Your task to perform on an android device: delete browsing data in the chrome app Image 0: 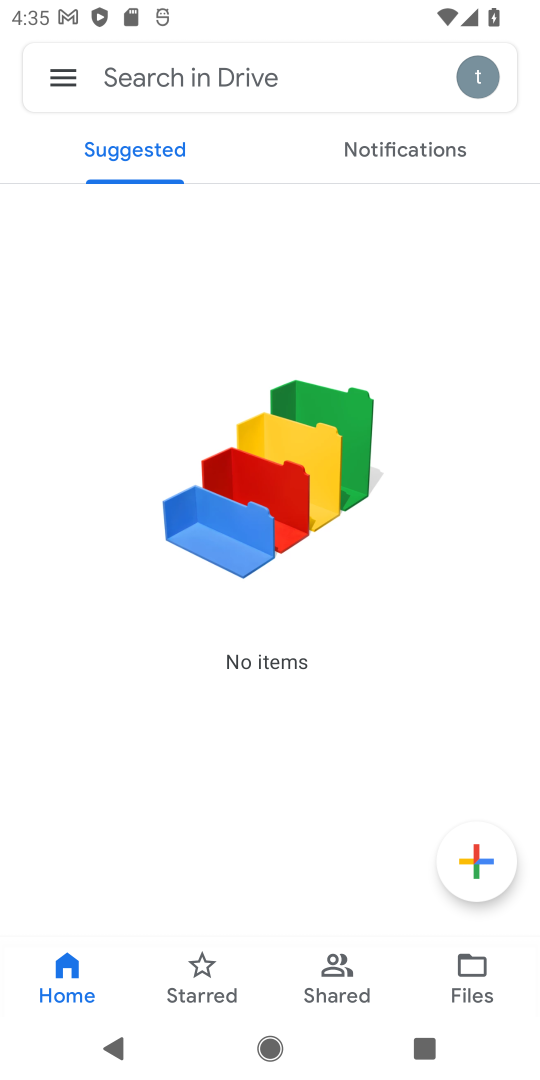
Step 0: press home button
Your task to perform on an android device: delete browsing data in the chrome app Image 1: 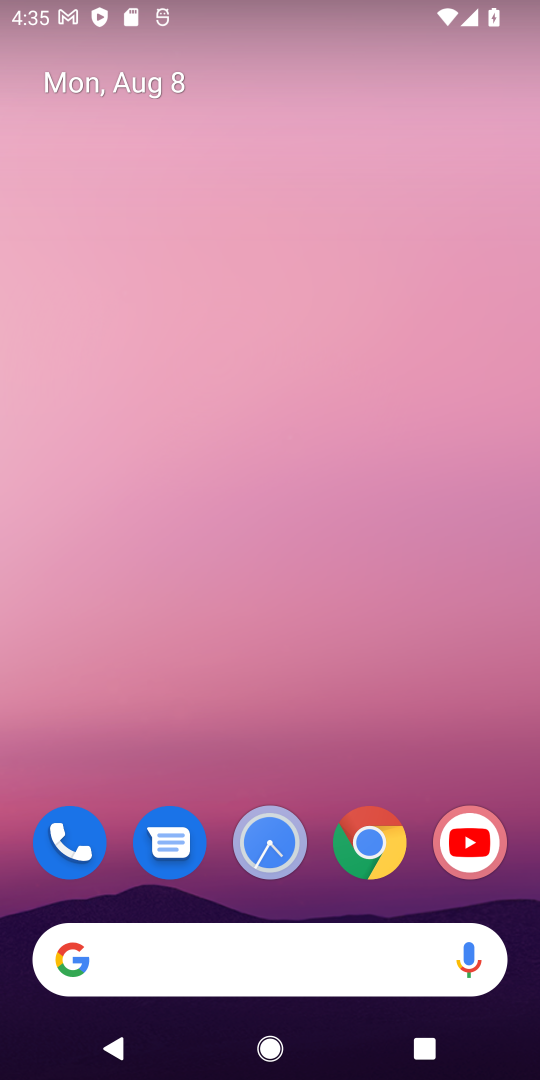
Step 1: click (364, 846)
Your task to perform on an android device: delete browsing data in the chrome app Image 2: 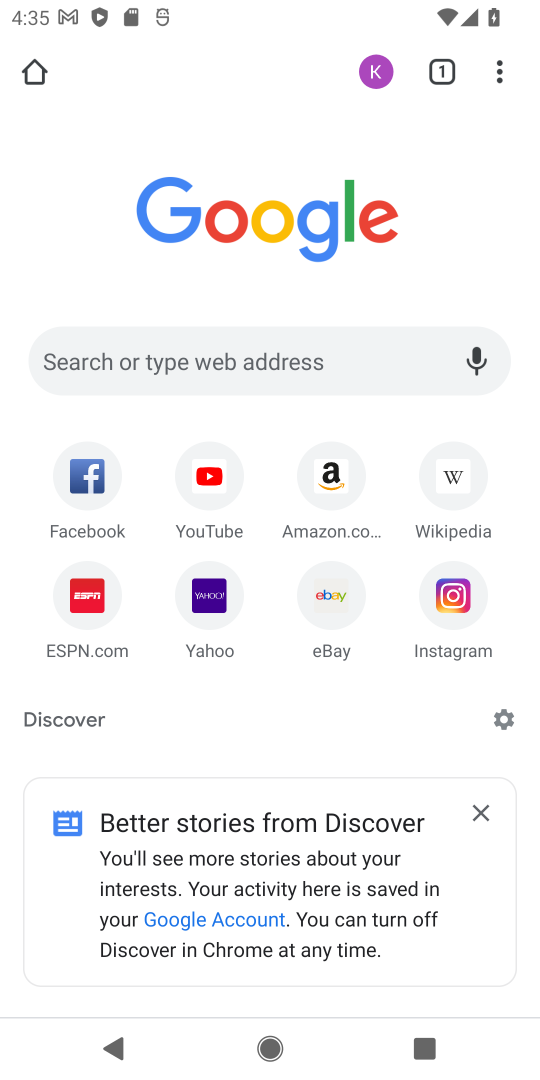
Step 2: click (493, 62)
Your task to perform on an android device: delete browsing data in the chrome app Image 3: 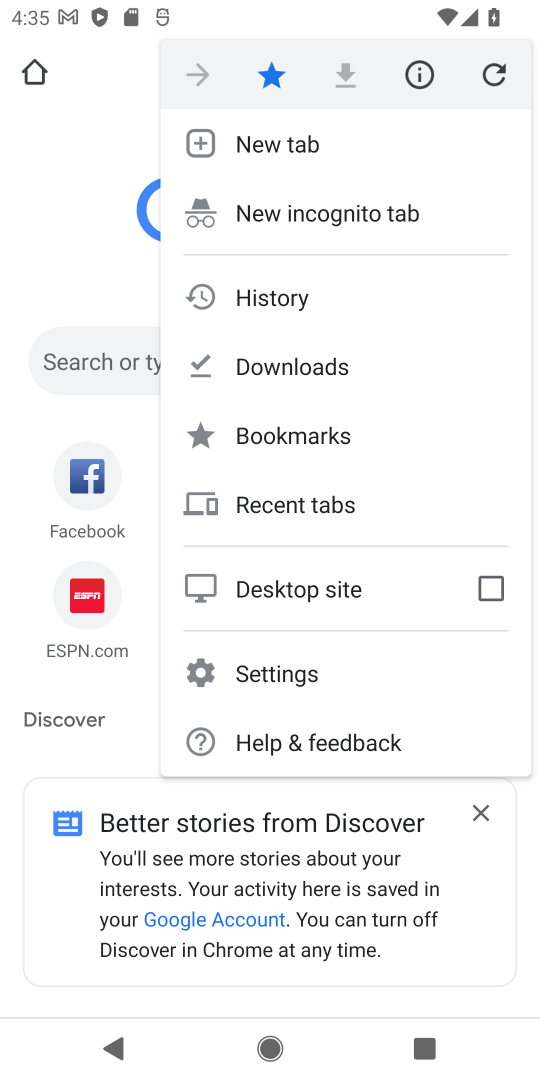
Step 3: click (285, 288)
Your task to perform on an android device: delete browsing data in the chrome app Image 4: 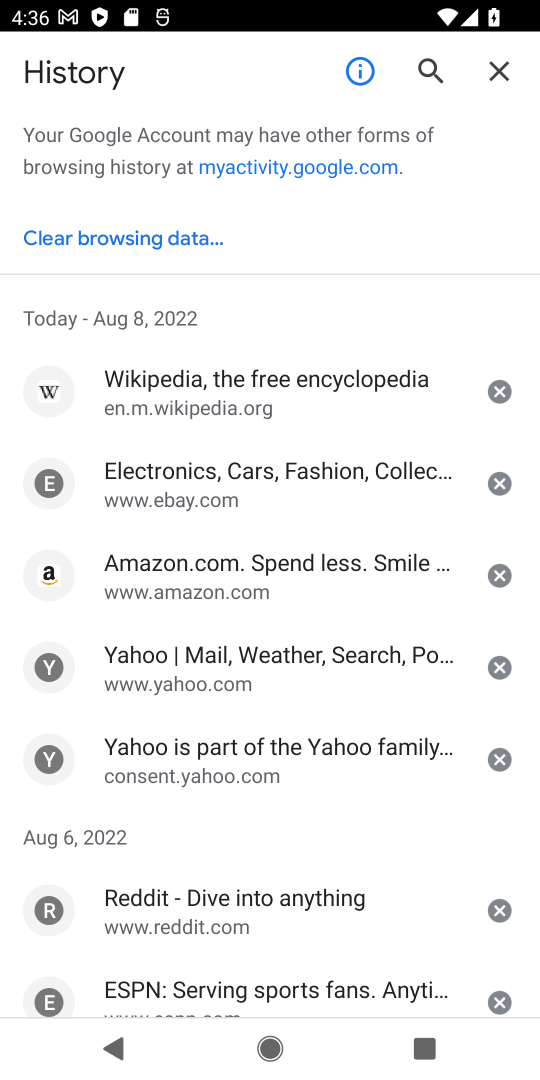
Step 4: click (179, 236)
Your task to perform on an android device: delete browsing data in the chrome app Image 5: 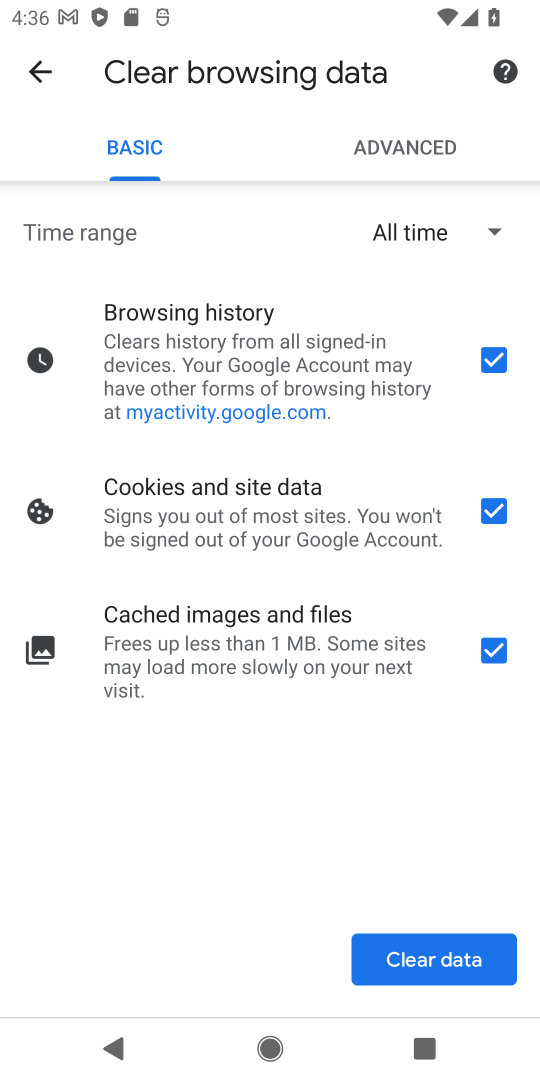
Step 5: click (390, 955)
Your task to perform on an android device: delete browsing data in the chrome app Image 6: 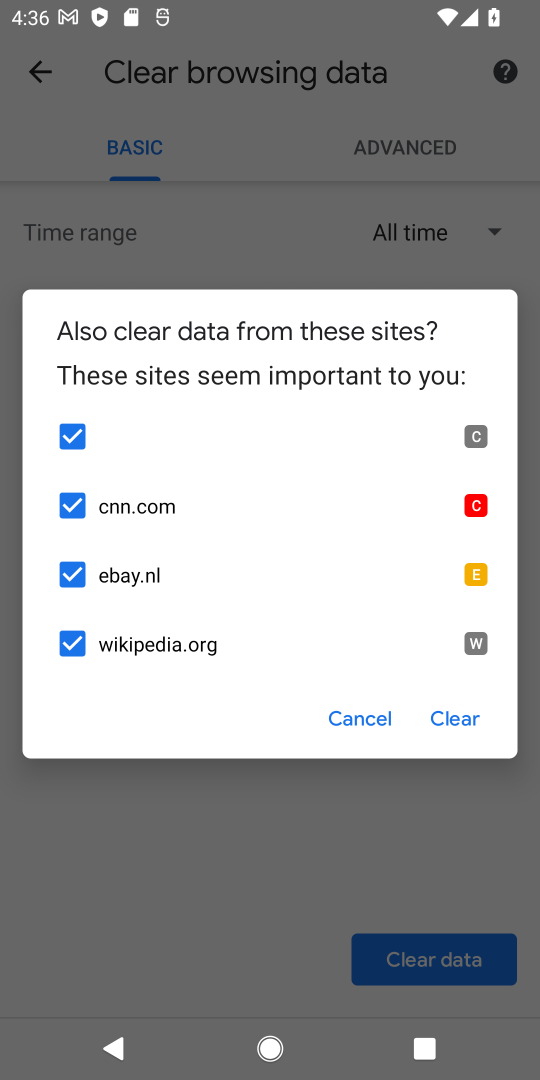
Step 6: click (457, 710)
Your task to perform on an android device: delete browsing data in the chrome app Image 7: 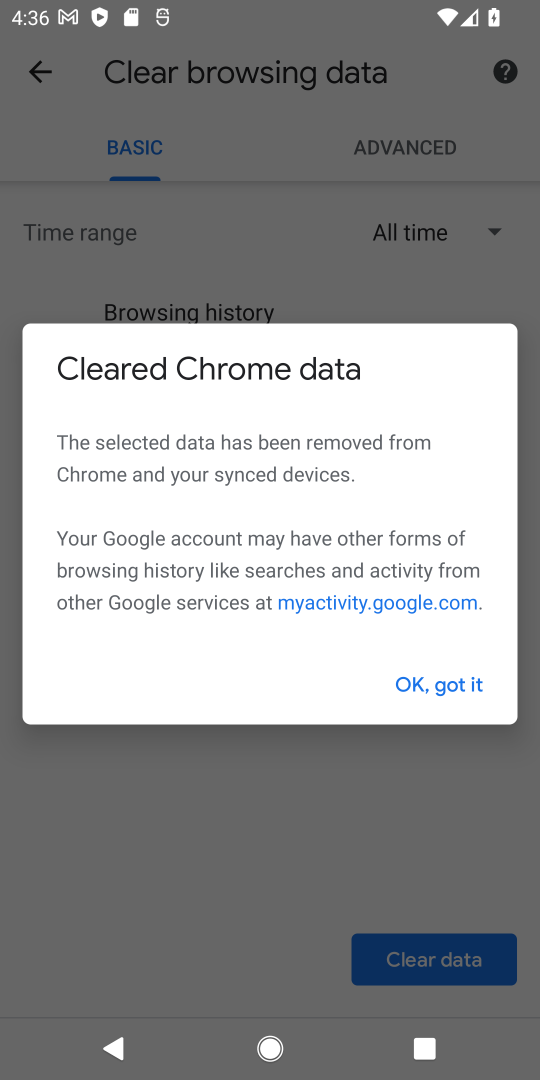
Step 7: click (445, 688)
Your task to perform on an android device: delete browsing data in the chrome app Image 8: 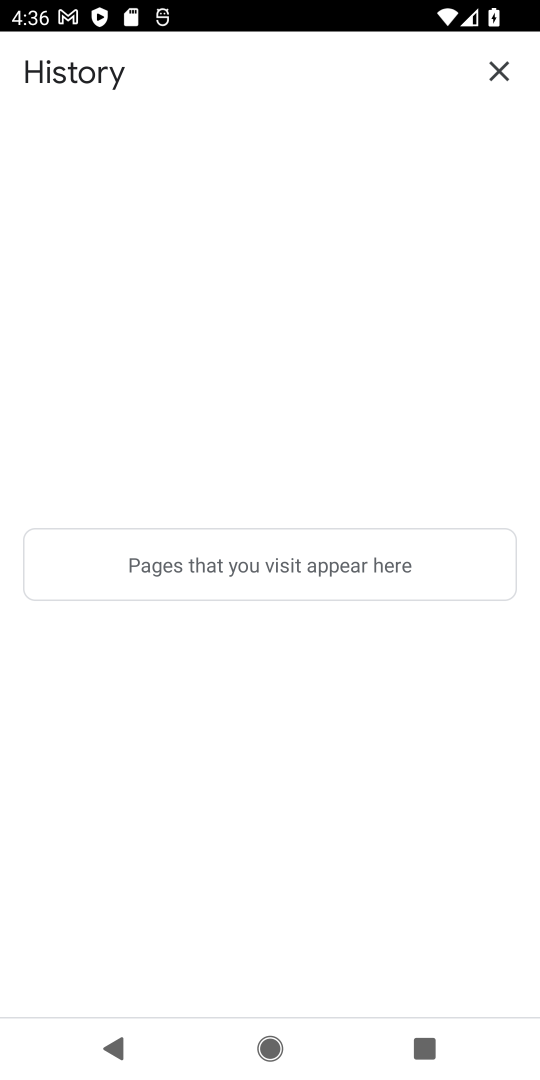
Step 8: task complete